Your task to perform on an android device: turn on translation in the chrome app Image 0: 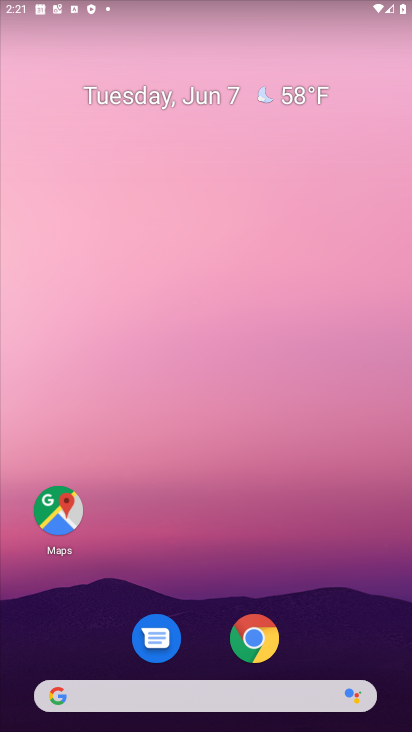
Step 0: drag from (230, 641) to (249, 228)
Your task to perform on an android device: turn on translation in the chrome app Image 1: 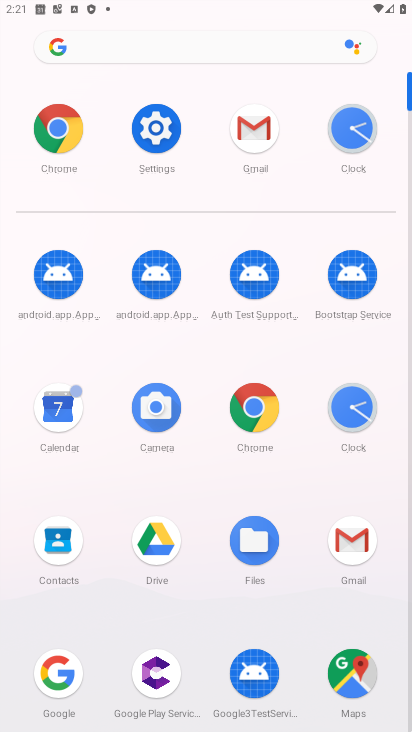
Step 1: click (60, 119)
Your task to perform on an android device: turn on translation in the chrome app Image 2: 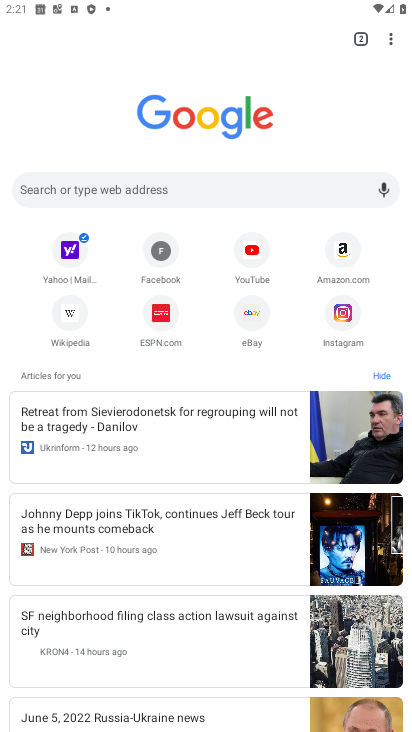
Step 2: click (392, 40)
Your task to perform on an android device: turn on translation in the chrome app Image 3: 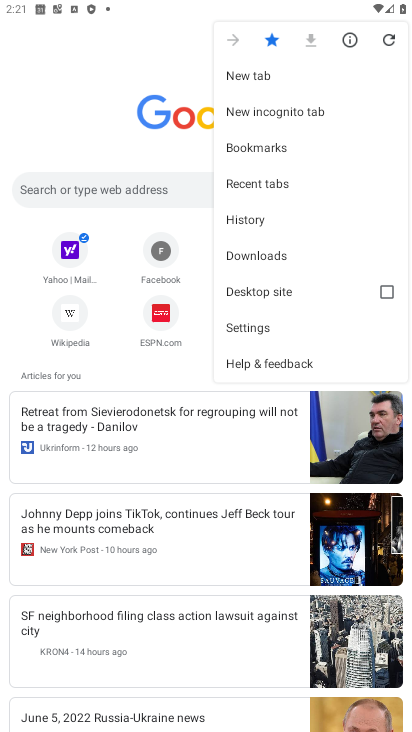
Step 3: click (258, 328)
Your task to perform on an android device: turn on translation in the chrome app Image 4: 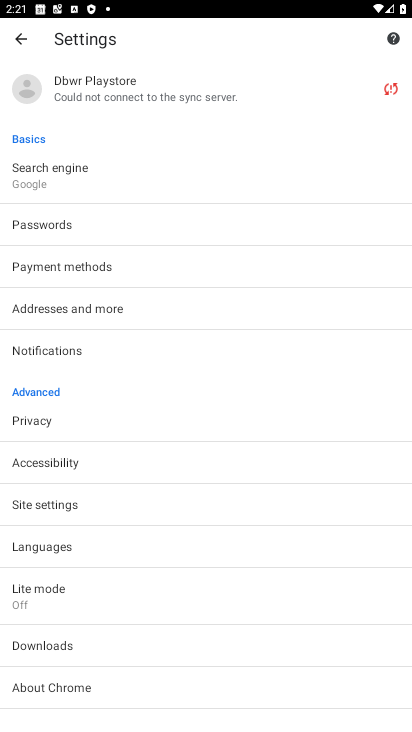
Step 4: click (47, 538)
Your task to perform on an android device: turn on translation in the chrome app Image 5: 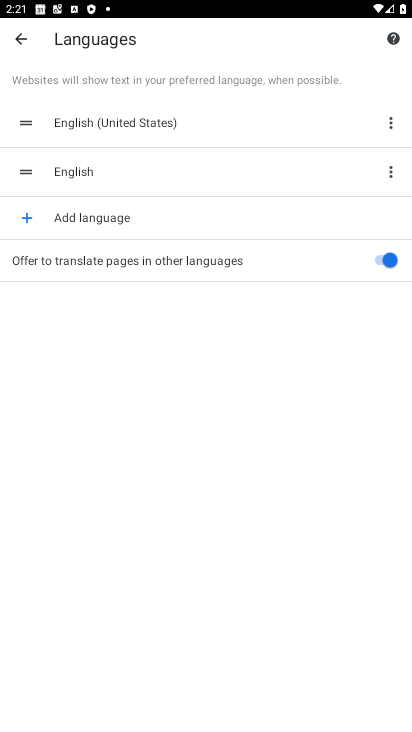
Step 5: task complete